Your task to perform on an android device: turn off priority inbox in the gmail app Image 0: 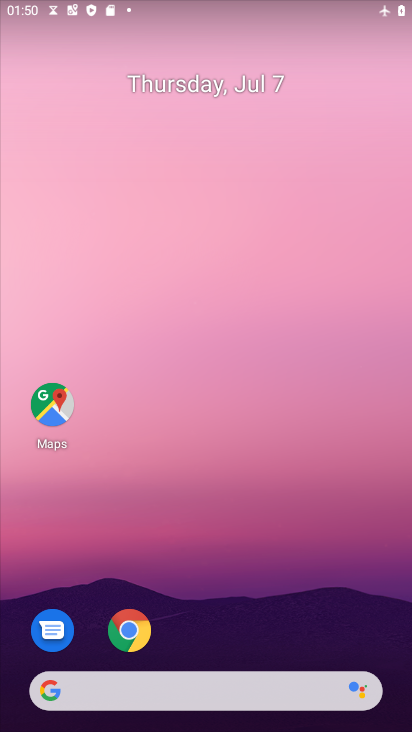
Step 0: drag from (267, 612) to (187, 185)
Your task to perform on an android device: turn off priority inbox in the gmail app Image 1: 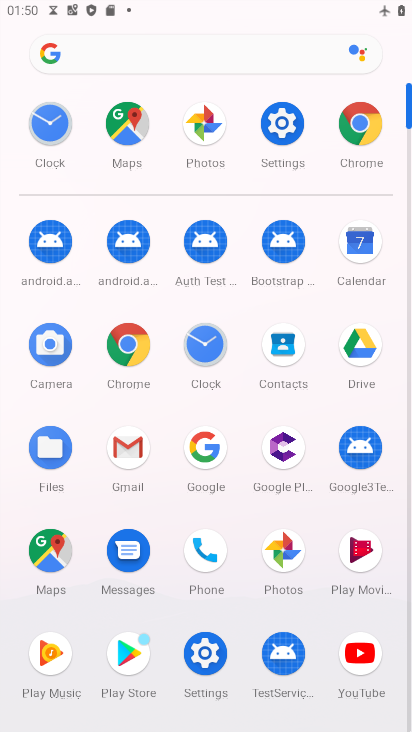
Step 1: click (130, 454)
Your task to perform on an android device: turn off priority inbox in the gmail app Image 2: 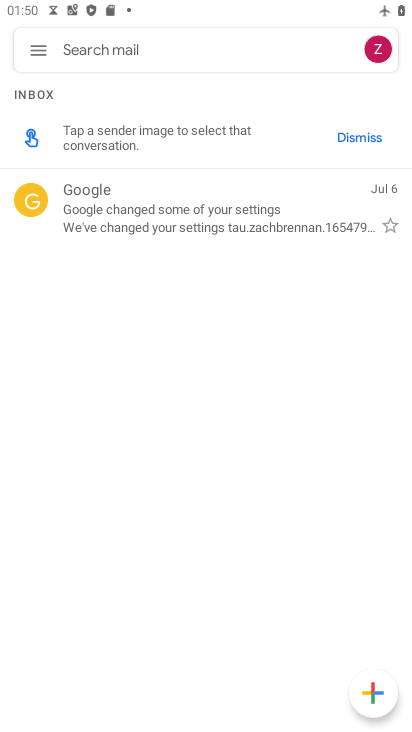
Step 2: click (40, 52)
Your task to perform on an android device: turn off priority inbox in the gmail app Image 3: 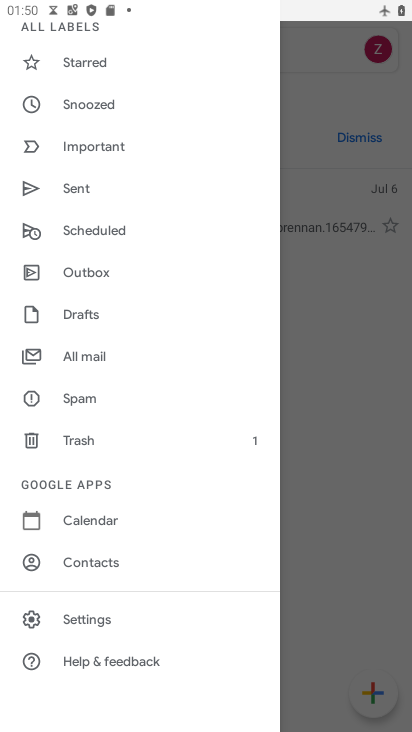
Step 3: click (145, 621)
Your task to perform on an android device: turn off priority inbox in the gmail app Image 4: 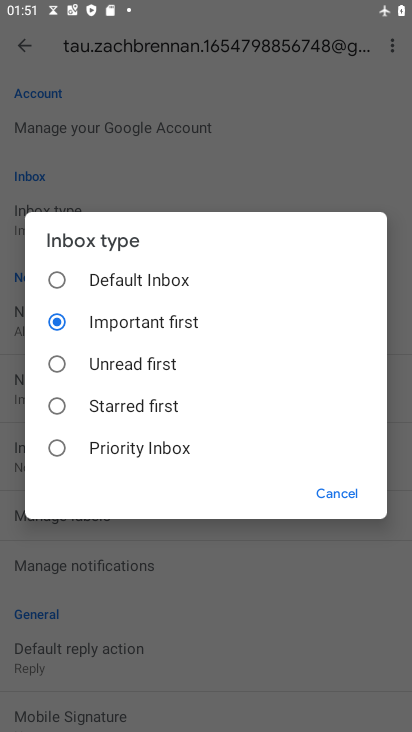
Step 4: task complete